Your task to perform on an android device: search for starred emails in the gmail app Image 0: 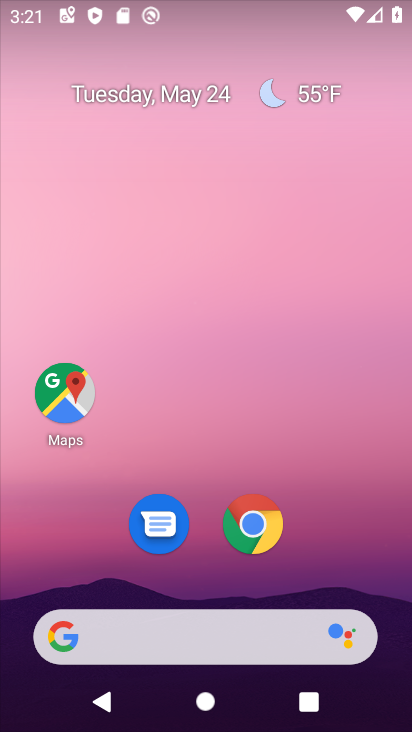
Step 0: drag from (226, 466) to (239, 31)
Your task to perform on an android device: search for starred emails in the gmail app Image 1: 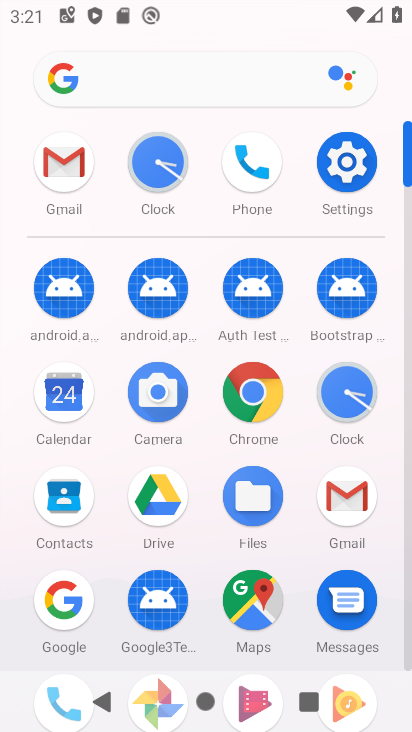
Step 1: click (69, 169)
Your task to perform on an android device: search for starred emails in the gmail app Image 2: 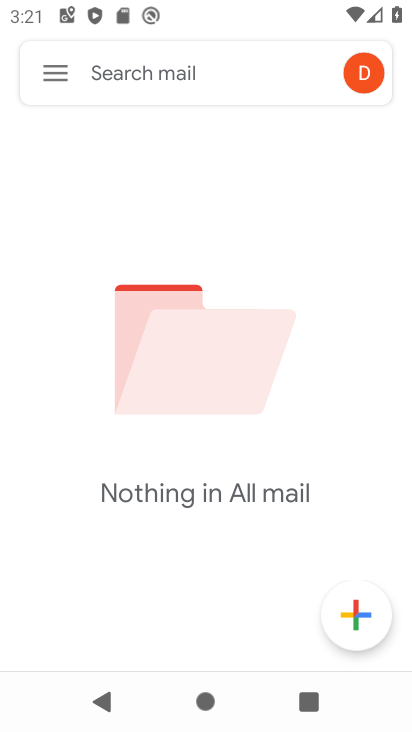
Step 2: click (59, 75)
Your task to perform on an android device: search for starred emails in the gmail app Image 3: 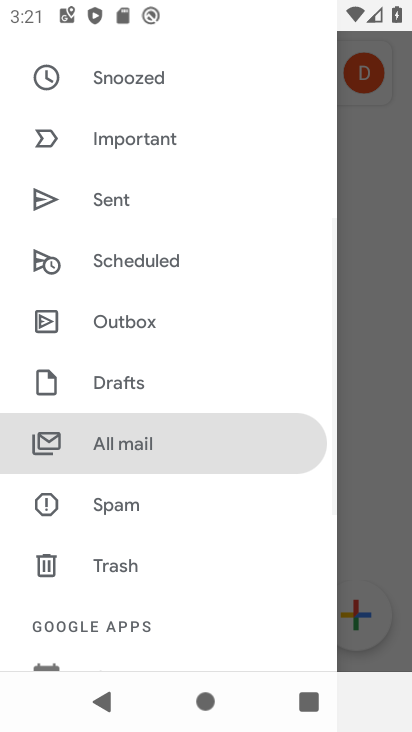
Step 3: drag from (173, 233) to (167, 620)
Your task to perform on an android device: search for starred emails in the gmail app Image 4: 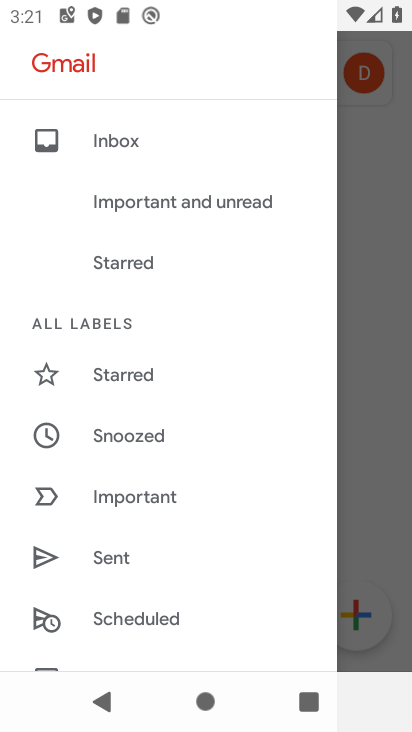
Step 4: click (179, 367)
Your task to perform on an android device: search for starred emails in the gmail app Image 5: 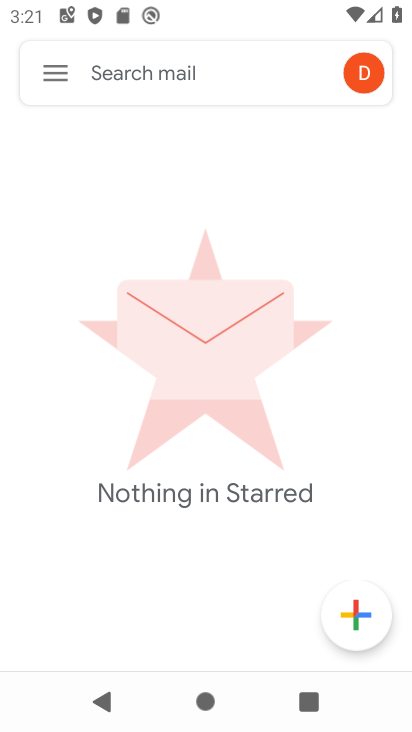
Step 5: task complete